Your task to perform on an android device: Open network settings Image 0: 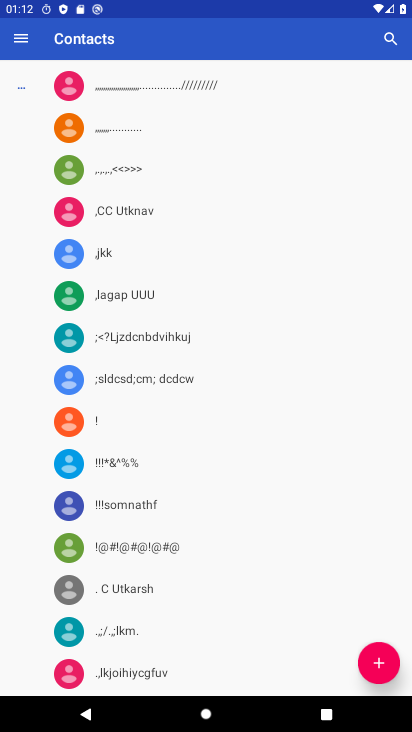
Step 0: press home button
Your task to perform on an android device: Open network settings Image 1: 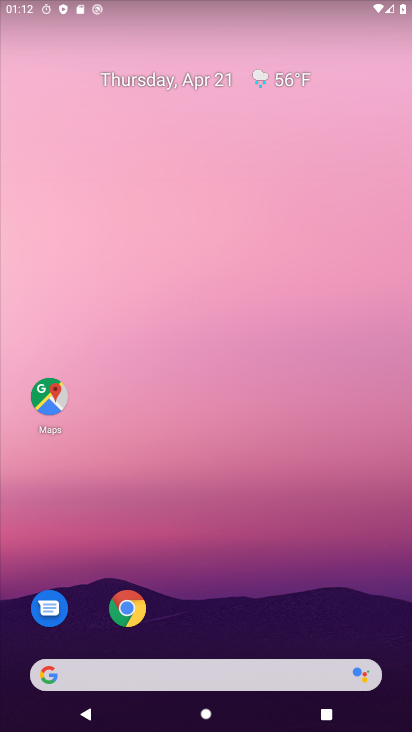
Step 1: drag from (246, 620) to (277, 1)
Your task to perform on an android device: Open network settings Image 2: 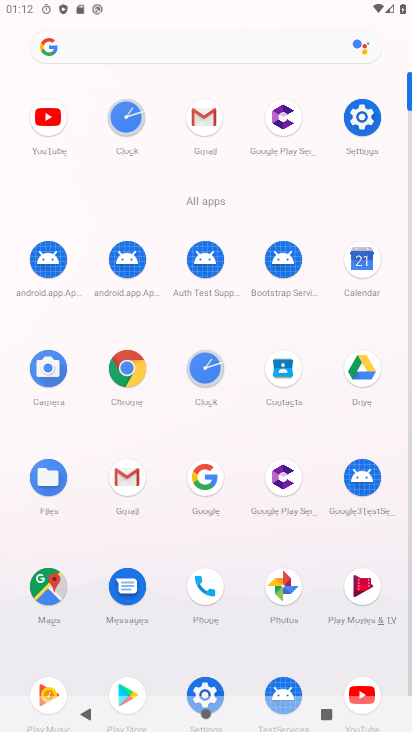
Step 2: click (365, 110)
Your task to perform on an android device: Open network settings Image 3: 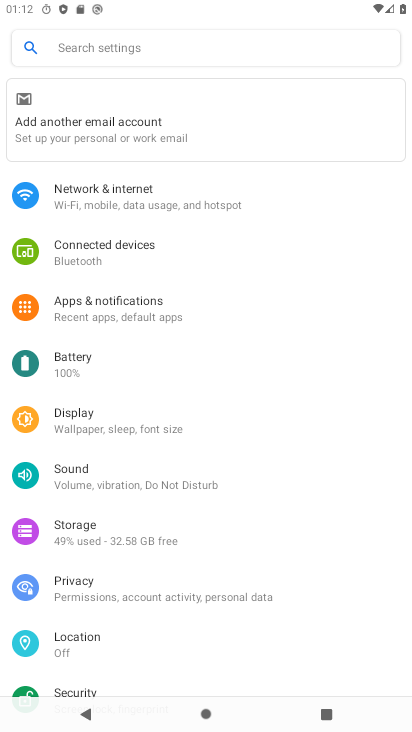
Step 3: click (139, 199)
Your task to perform on an android device: Open network settings Image 4: 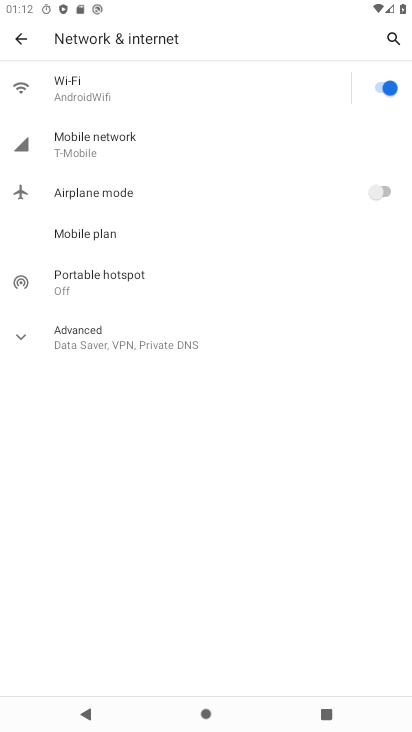
Step 4: task complete